Your task to perform on an android device: toggle sleep mode Image 0: 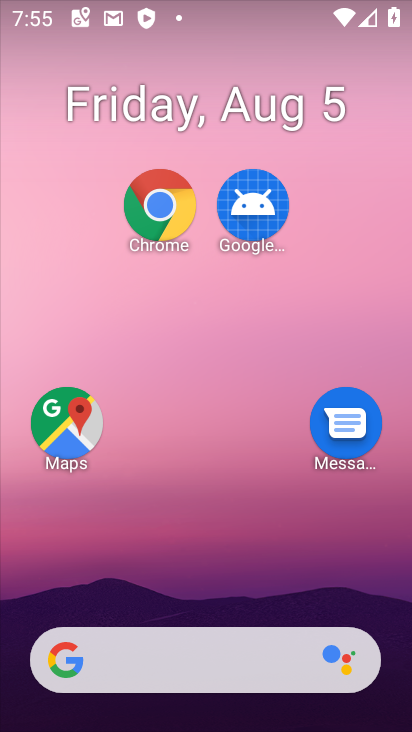
Step 0: drag from (270, 570) to (270, 75)
Your task to perform on an android device: toggle sleep mode Image 1: 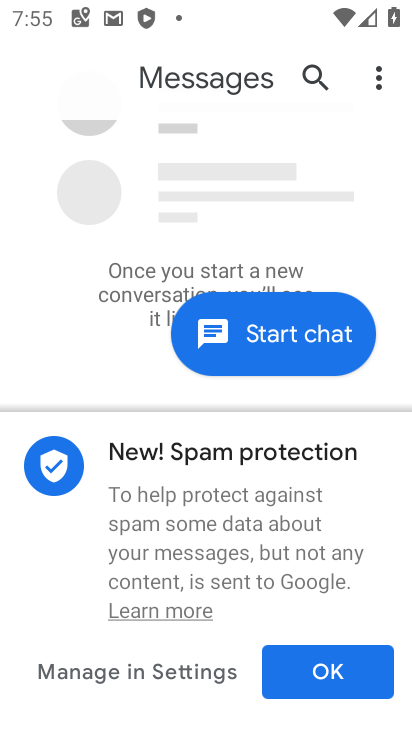
Step 1: press back button
Your task to perform on an android device: toggle sleep mode Image 2: 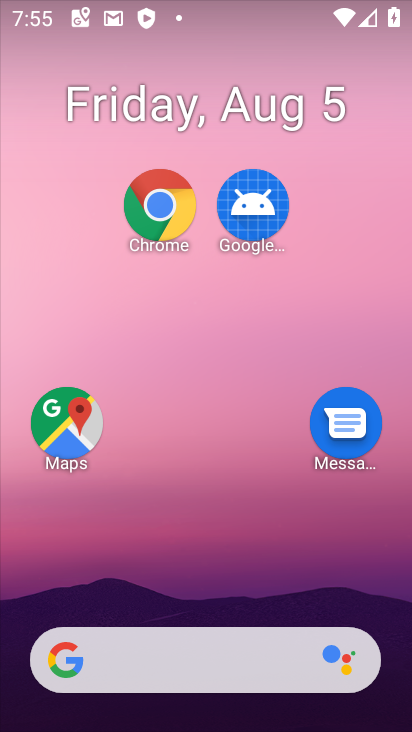
Step 2: drag from (189, 597) to (167, 168)
Your task to perform on an android device: toggle sleep mode Image 3: 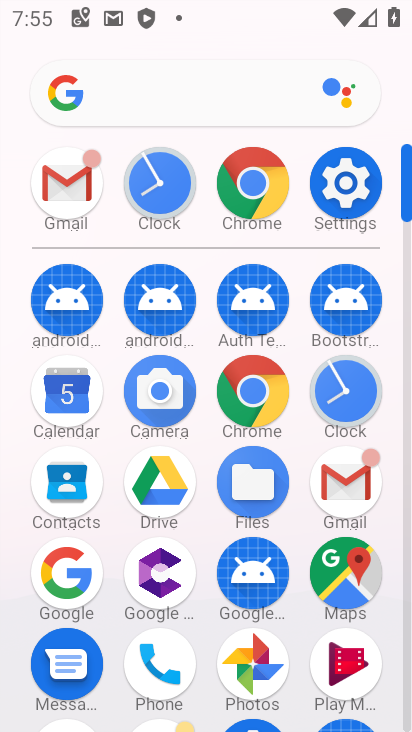
Step 3: click (342, 188)
Your task to perform on an android device: toggle sleep mode Image 4: 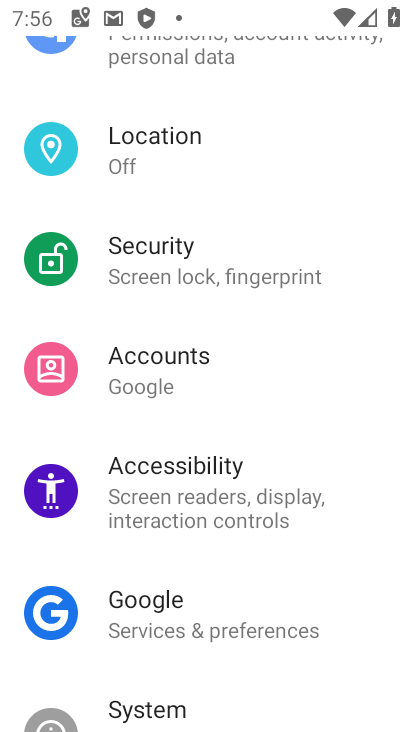
Step 4: drag from (85, 70) to (175, 419)
Your task to perform on an android device: toggle sleep mode Image 5: 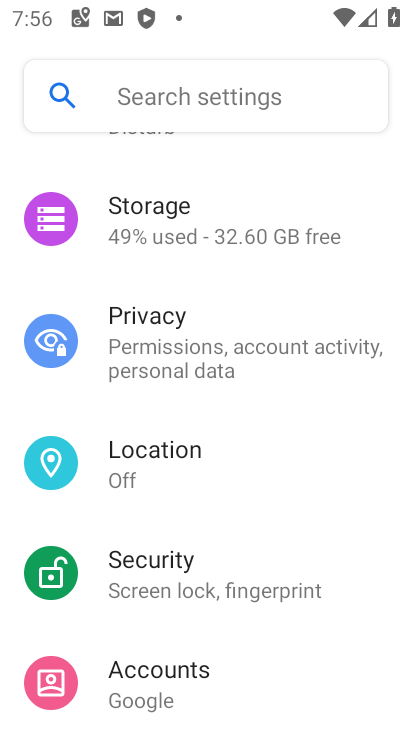
Step 5: drag from (236, 225) to (226, 547)
Your task to perform on an android device: toggle sleep mode Image 6: 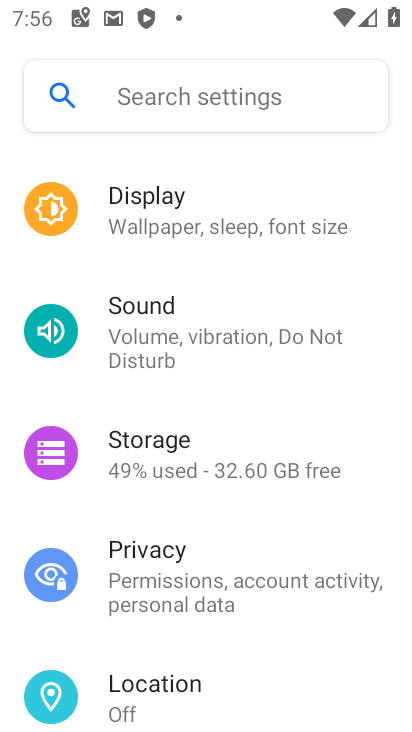
Step 6: click (239, 226)
Your task to perform on an android device: toggle sleep mode Image 7: 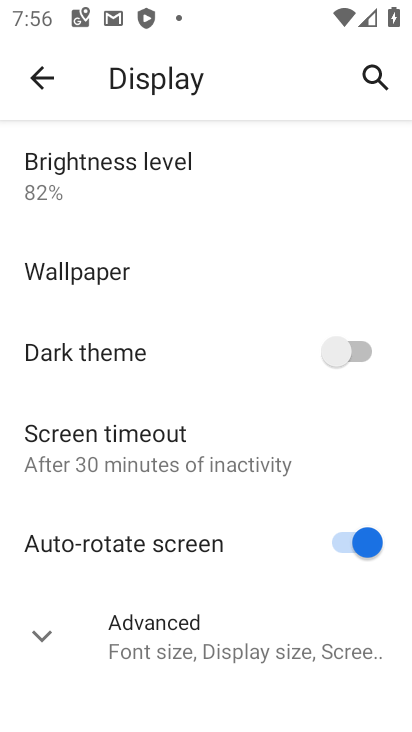
Step 7: task complete